Your task to perform on an android device: Open Reddit.com Image 0: 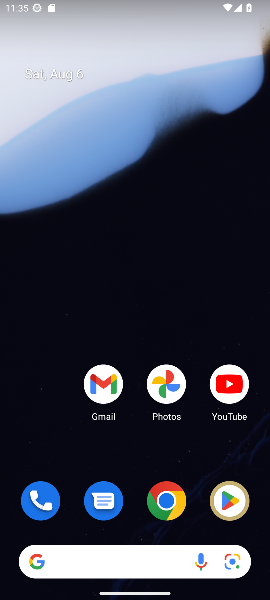
Step 0: click (165, 491)
Your task to perform on an android device: Open Reddit.com Image 1: 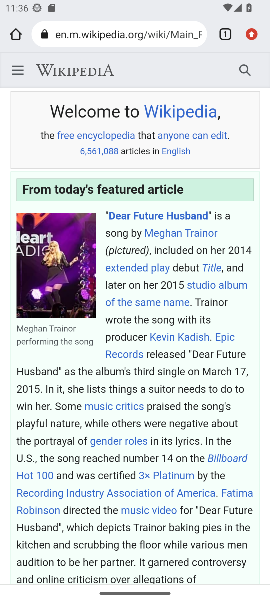
Step 1: click (112, 33)
Your task to perform on an android device: Open Reddit.com Image 2: 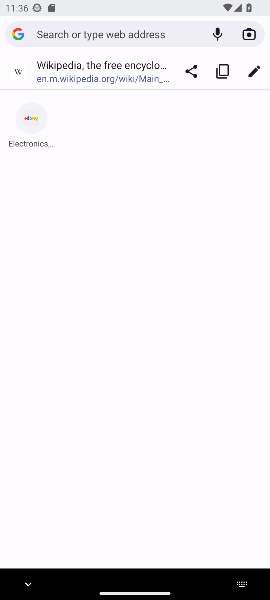
Step 2: type "www.reddit.com"
Your task to perform on an android device: Open Reddit.com Image 3: 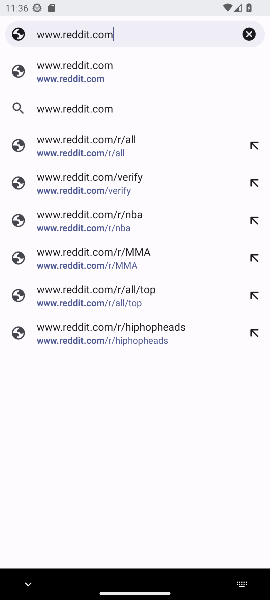
Step 3: click (50, 70)
Your task to perform on an android device: Open Reddit.com Image 4: 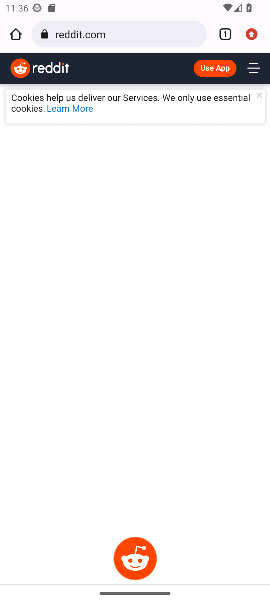
Step 4: task complete